Your task to perform on an android device: Go to network settings Image 0: 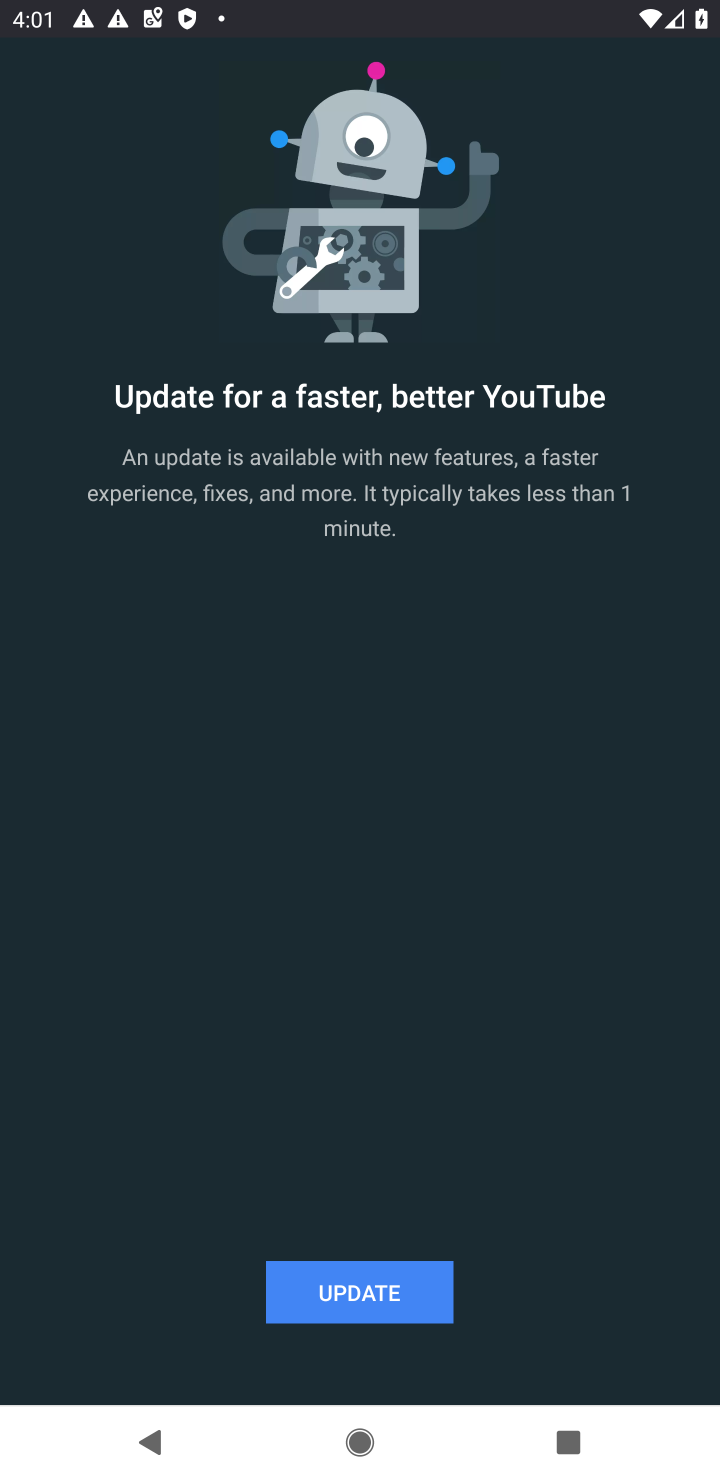
Step 0: press home button
Your task to perform on an android device: Go to network settings Image 1: 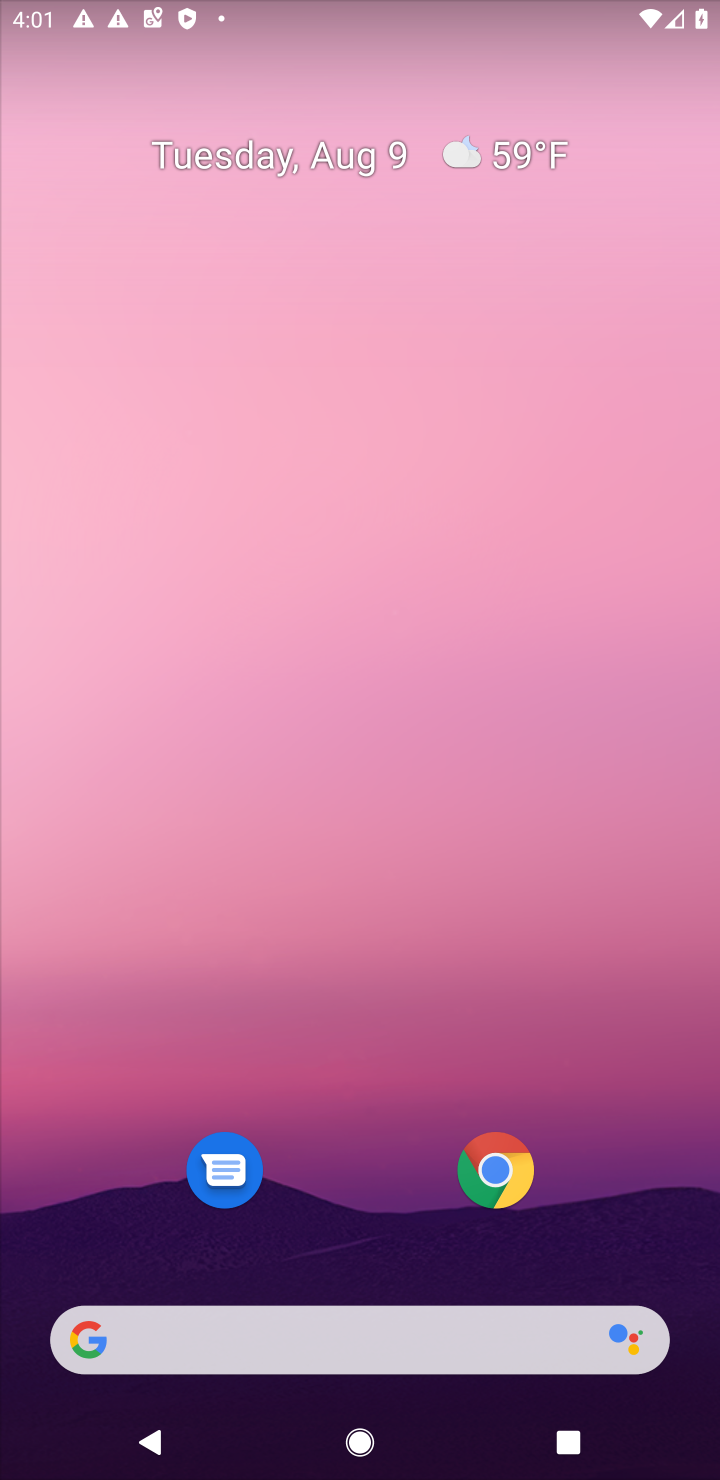
Step 1: drag from (361, 1059) to (318, 160)
Your task to perform on an android device: Go to network settings Image 2: 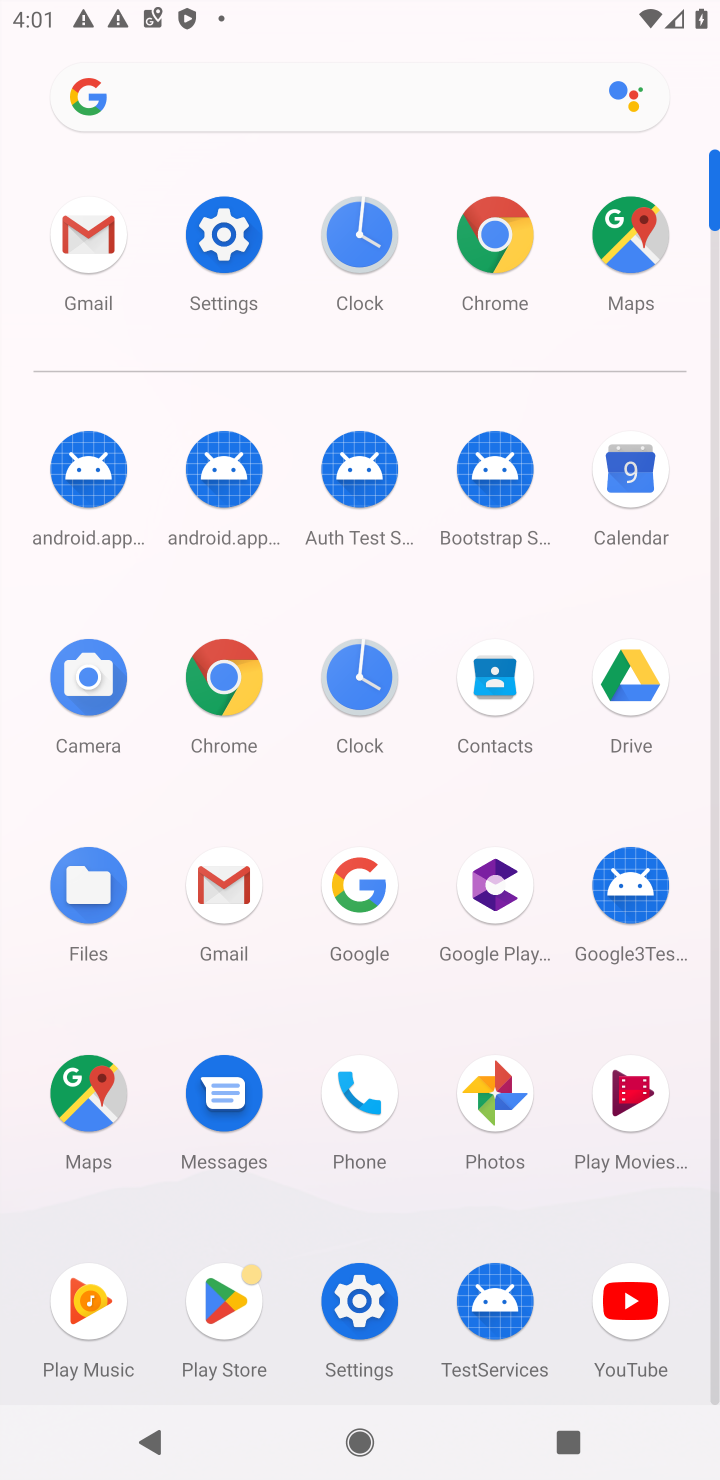
Step 2: click (213, 243)
Your task to perform on an android device: Go to network settings Image 3: 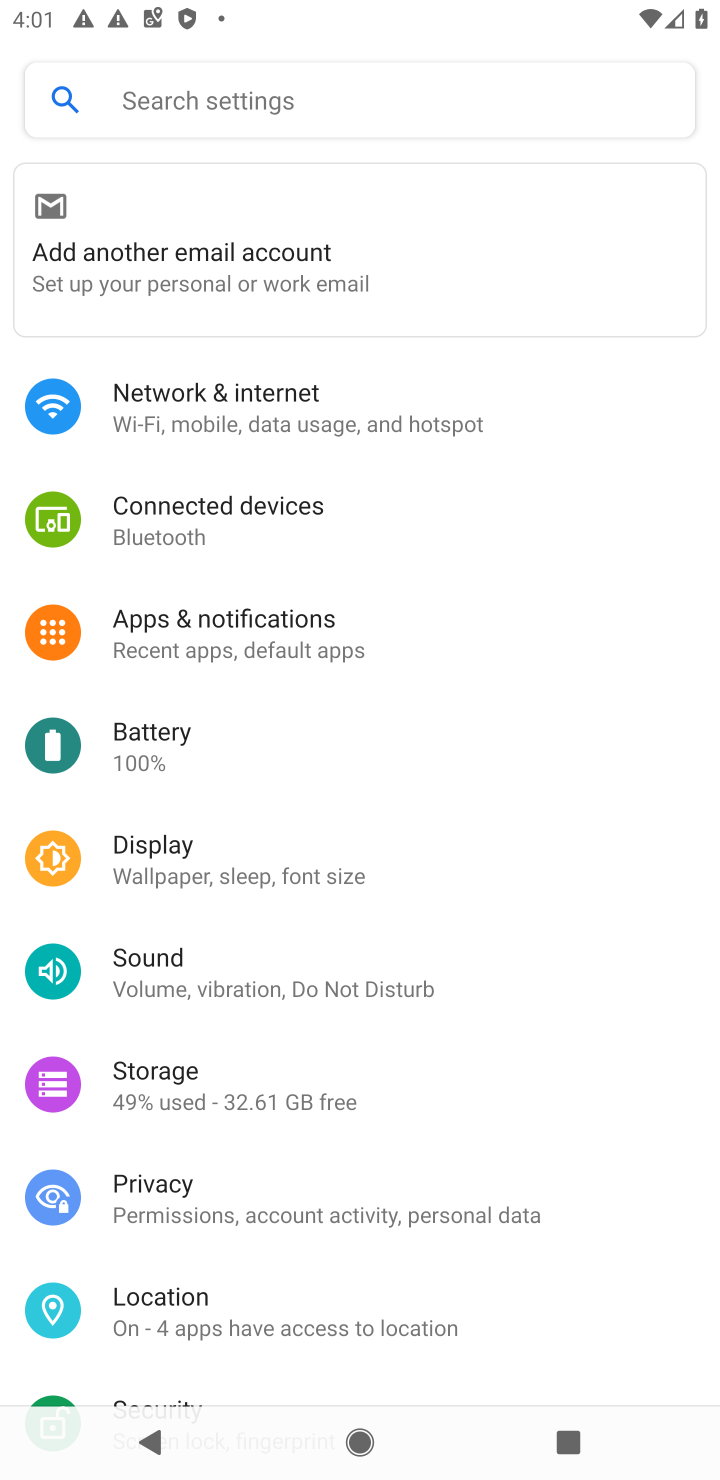
Step 3: click (204, 415)
Your task to perform on an android device: Go to network settings Image 4: 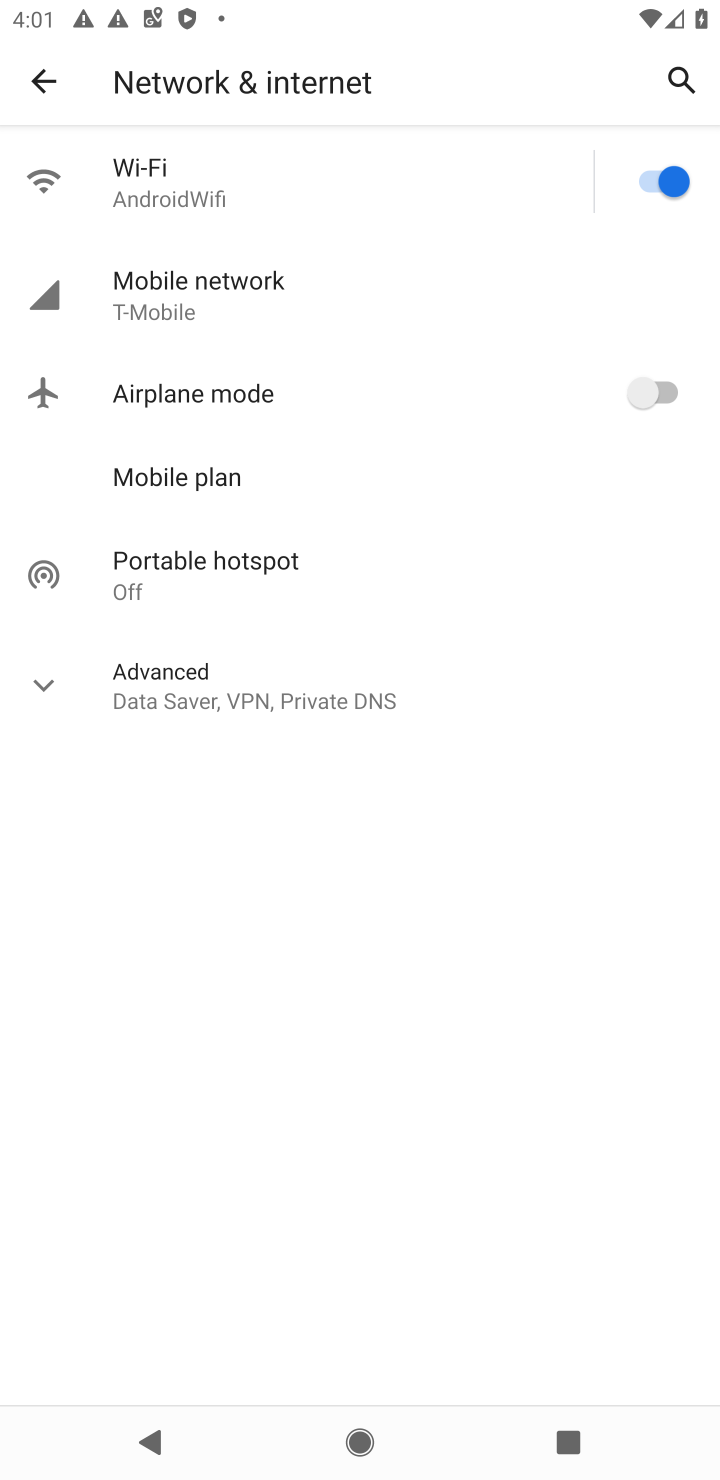
Step 4: click (249, 284)
Your task to perform on an android device: Go to network settings Image 5: 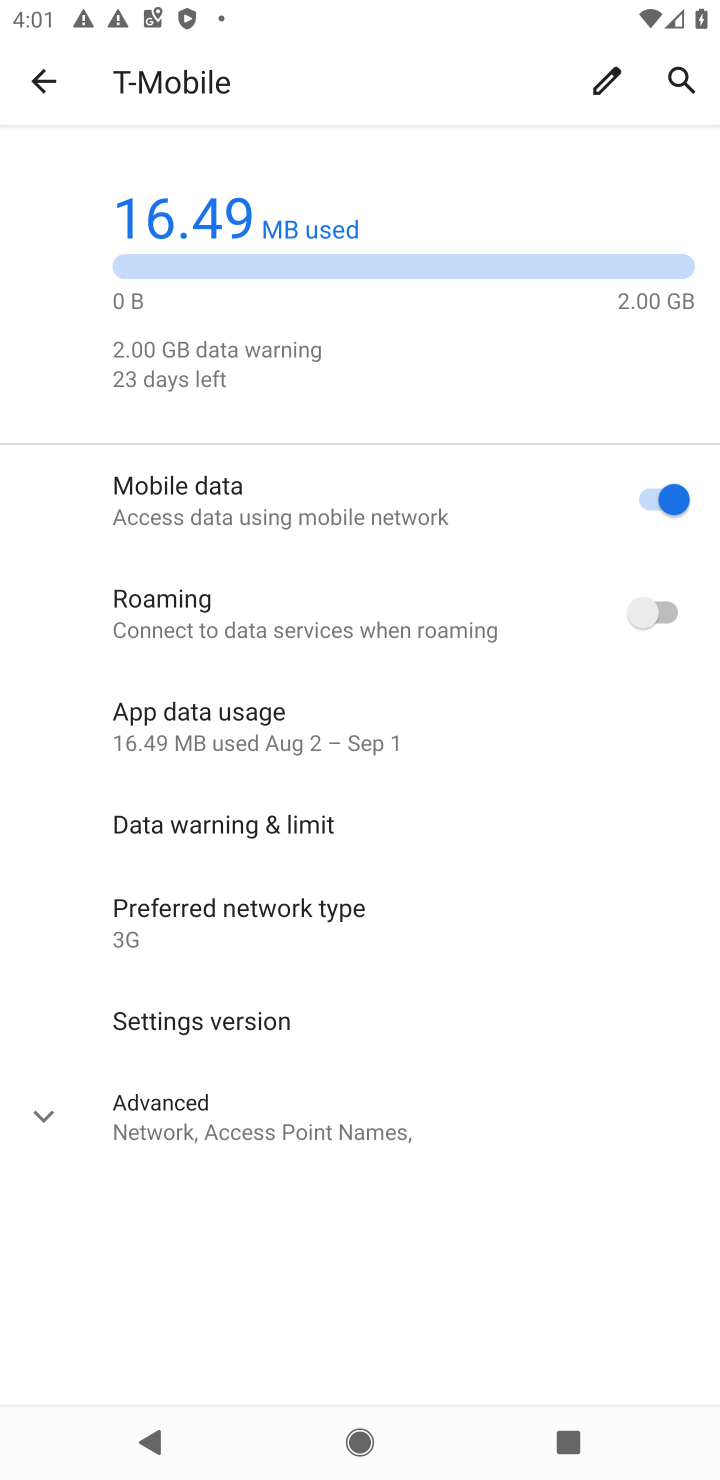
Step 5: task complete